Your task to perform on an android device: Open the calendar app, open the side menu, and click the "Day" option Image 0: 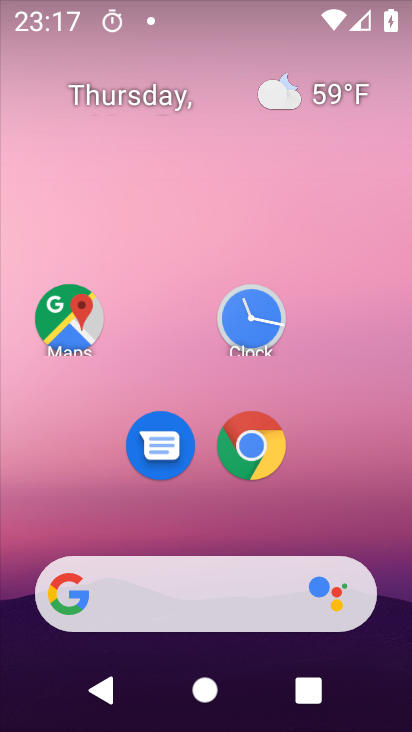
Step 0: drag from (209, 591) to (214, 175)
Your task to perform on an android device: Open the calendar app, open the side menu, and click the "Day" option Image 1: 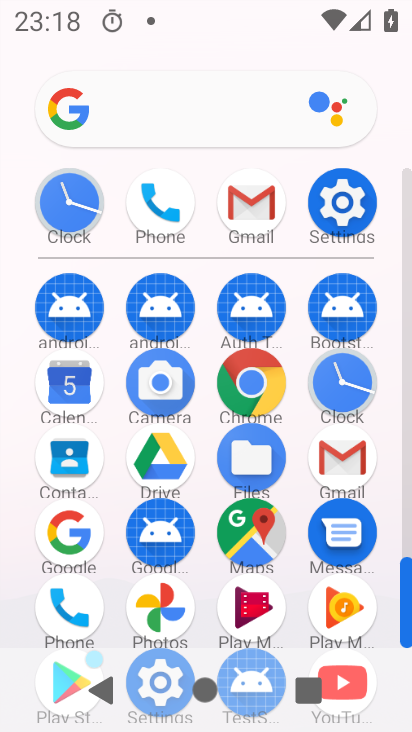
Step 1: click (78, 395)
Your task to perform on an android device: Open the calendar app, open the side menu, and click the "Day" option Image 2: 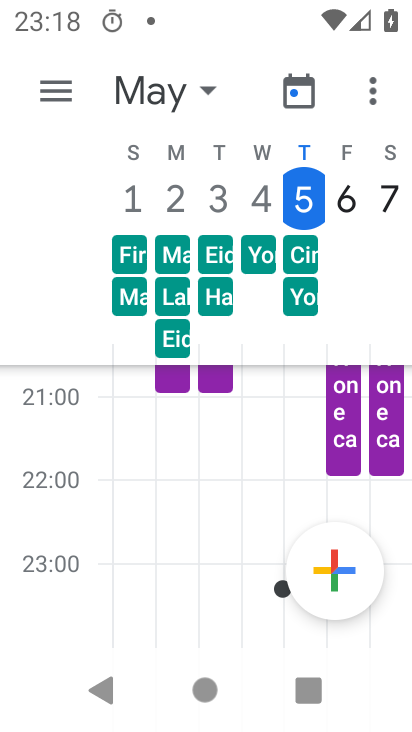
Step 2: click (56, 115)
Your task to perform on an android device: Open the calendar app, open the side menu, and click the "Day" option Image 3: 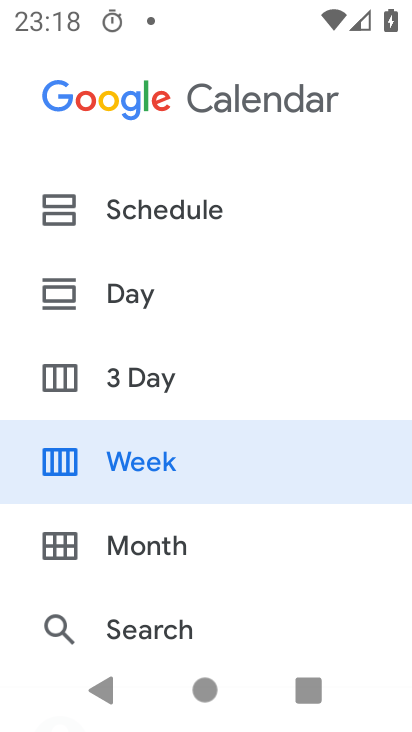
Step 3: click (117, 295)
Your task to perform on an android device: Open the calendar app, open the side menu, and click the "Day" option Image 4: 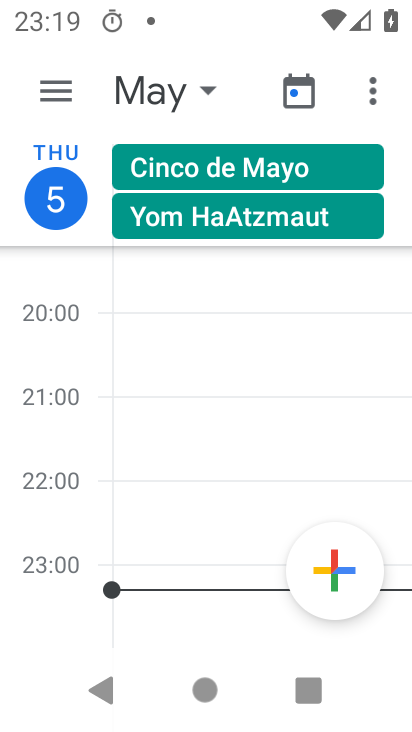
Step 4: task complete